Your task to perform on an android device: clear all cookies in the chrome app Image 0: 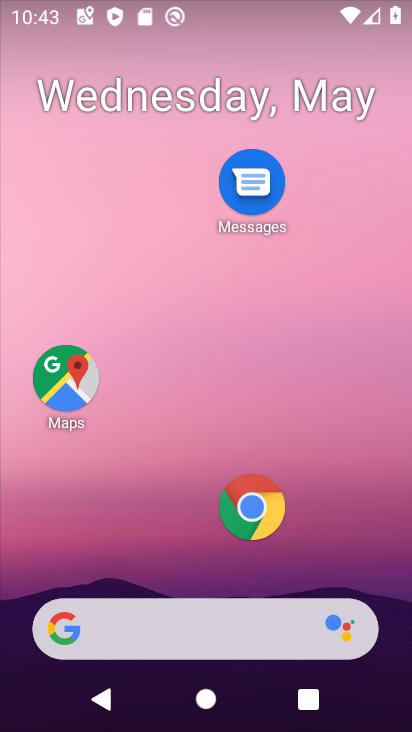
Step 0: press home button
Your task to perform on an android device: clear all cookies in the chrome app Image 1: 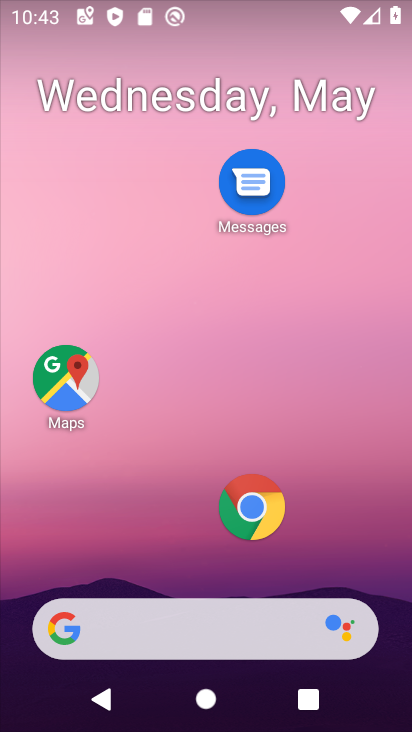
Step 1: click (250, 500)
Your task to perform on an android device: clear all cookies in the chrome app Image 2: 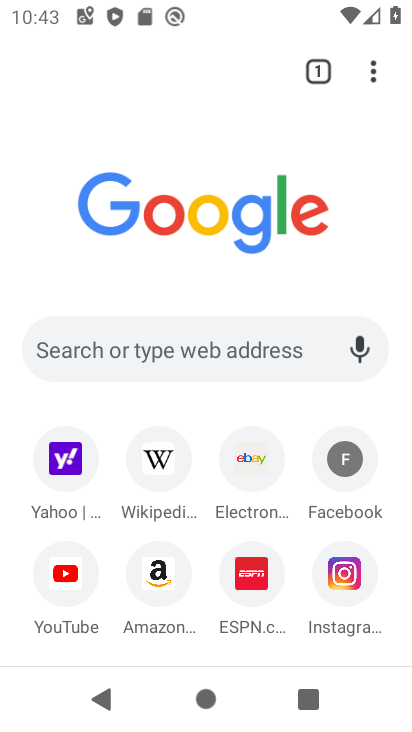
Step 2: click (375, 73)
Your task to perform on an android device: clear all cookies in the chrome app Image 3: 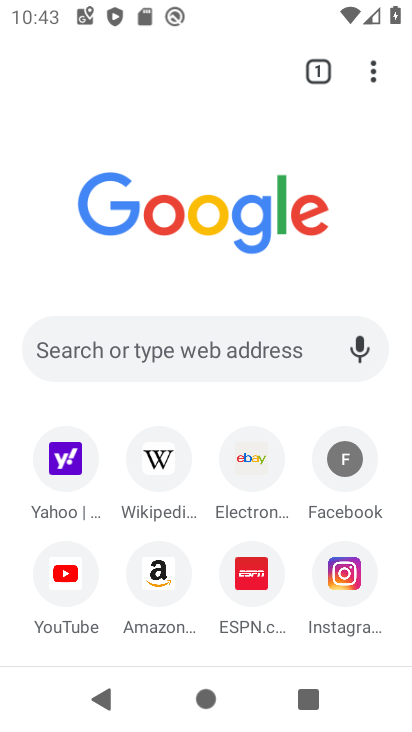
Step 3: click (368, 70)
Your task to perform on an android device: clear all cookies in the chrome app Image 4: 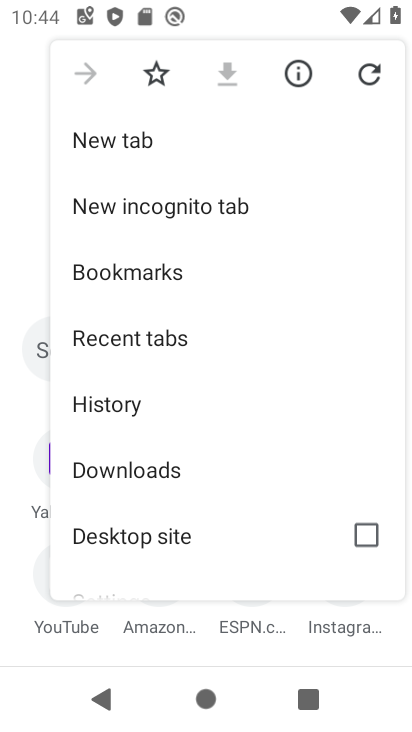
Step 4: click (154, 398)
Your task to perform on an android device: clear all cookies in the chrome app Image 5: 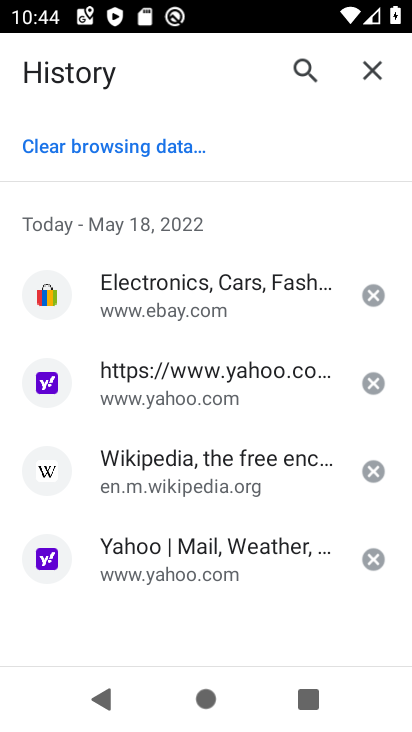
Step 5: click (128, 146)
Your task to perform on an android device: clear all cookies in the chrome app Image 6: 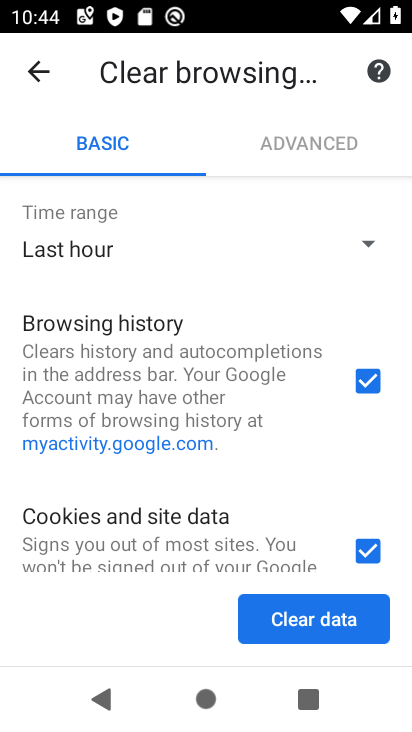
Step 6: click (370, 388)
Your task to perform on an android device: clear all cookies in the chrome app Image 7: 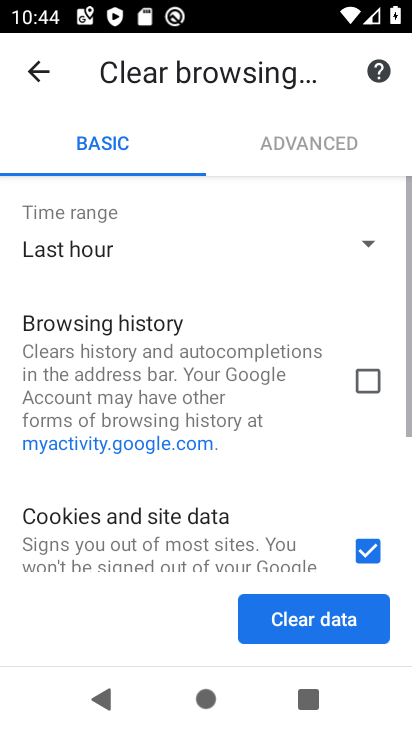
Step 7: drag from (255, 510) to (307, 166)
Your task to perform on an android device: clear all cookies in the chrome app Image 8: 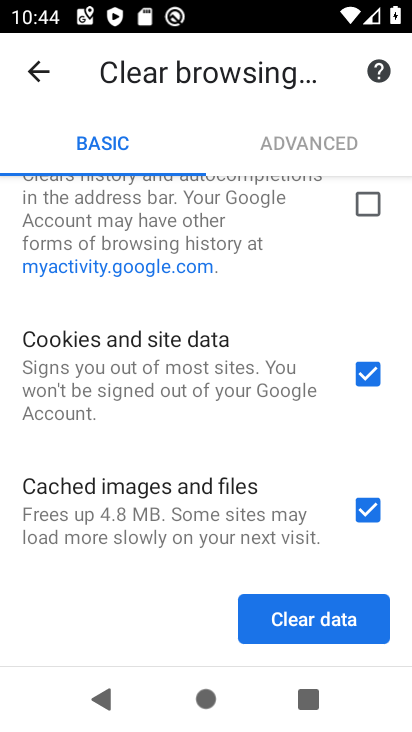
Step 8: click (364, 512)
Your task to perform on an android device: clear all cookies in the chrome app Image 9: 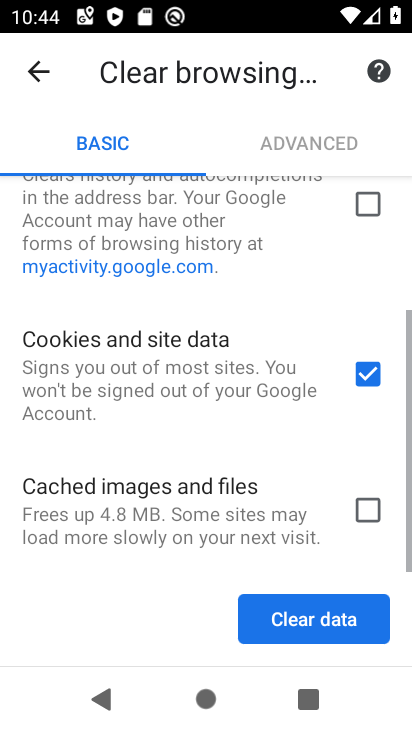
Step 9: drag from (257, 255) to (276, 589)
Your task to perform on an android device: clear all cookies in the chrome app Image 10: 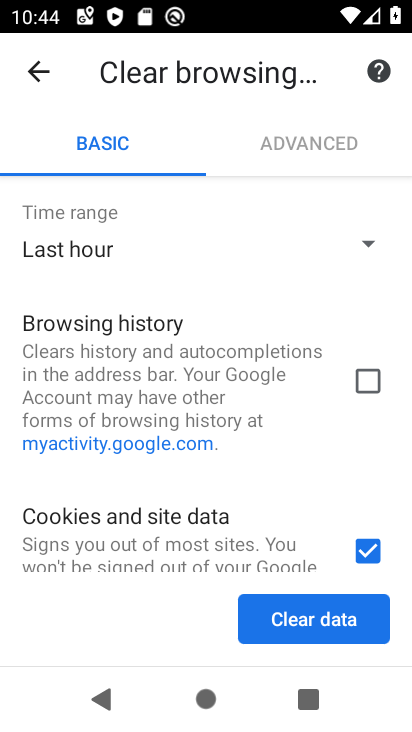
Step 10: click (366, 241)
Your task to perform on an android device: clear all cookies in the chrome app Image 11: 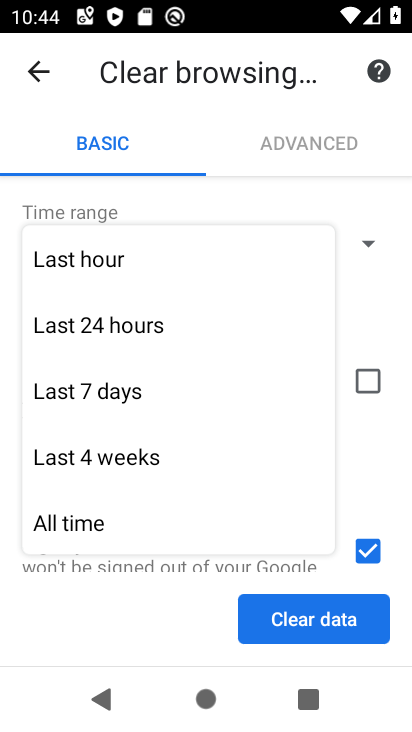
Step 11: click (111, 520)
Your task to perform on an android device: clear all cookies in the chrome app Image 12: 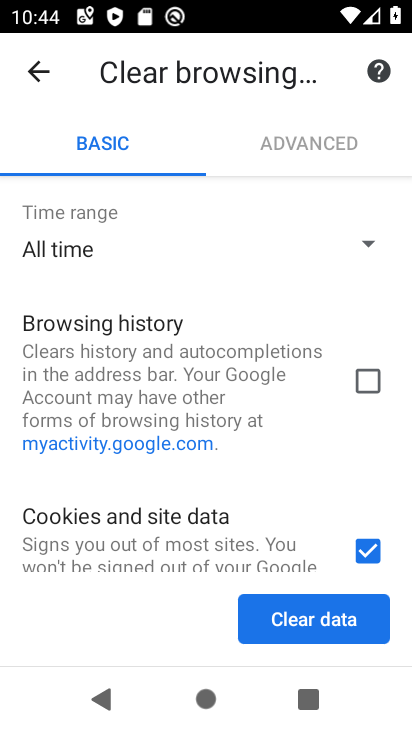
Step 12: click (304, 620)
Your task to perform on an android device: clear all cookies in the chrome app Image 13: 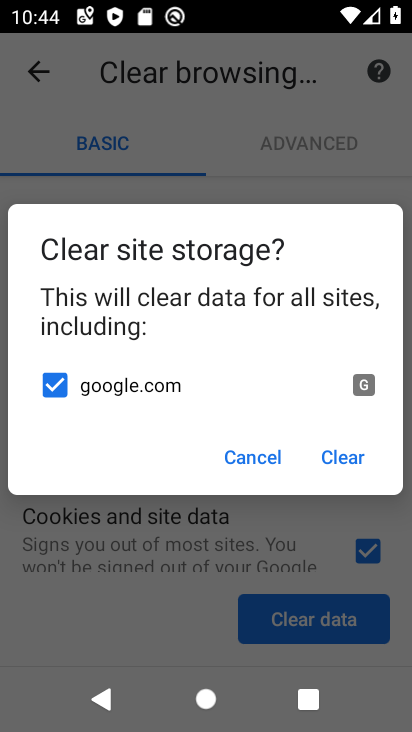
Step 13: click (341, 465)
Your task to perform on an android device: clear all cookies in the chrome app Image 14: 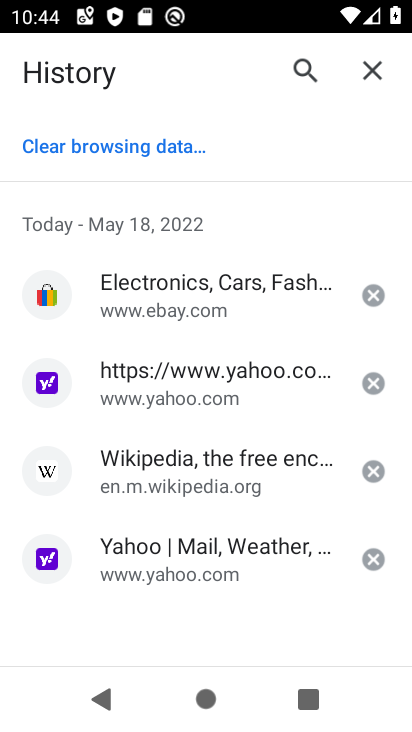
Step 14: task complete